Your task to perform on an android device: refresh tabs in the chrome app Image 0: 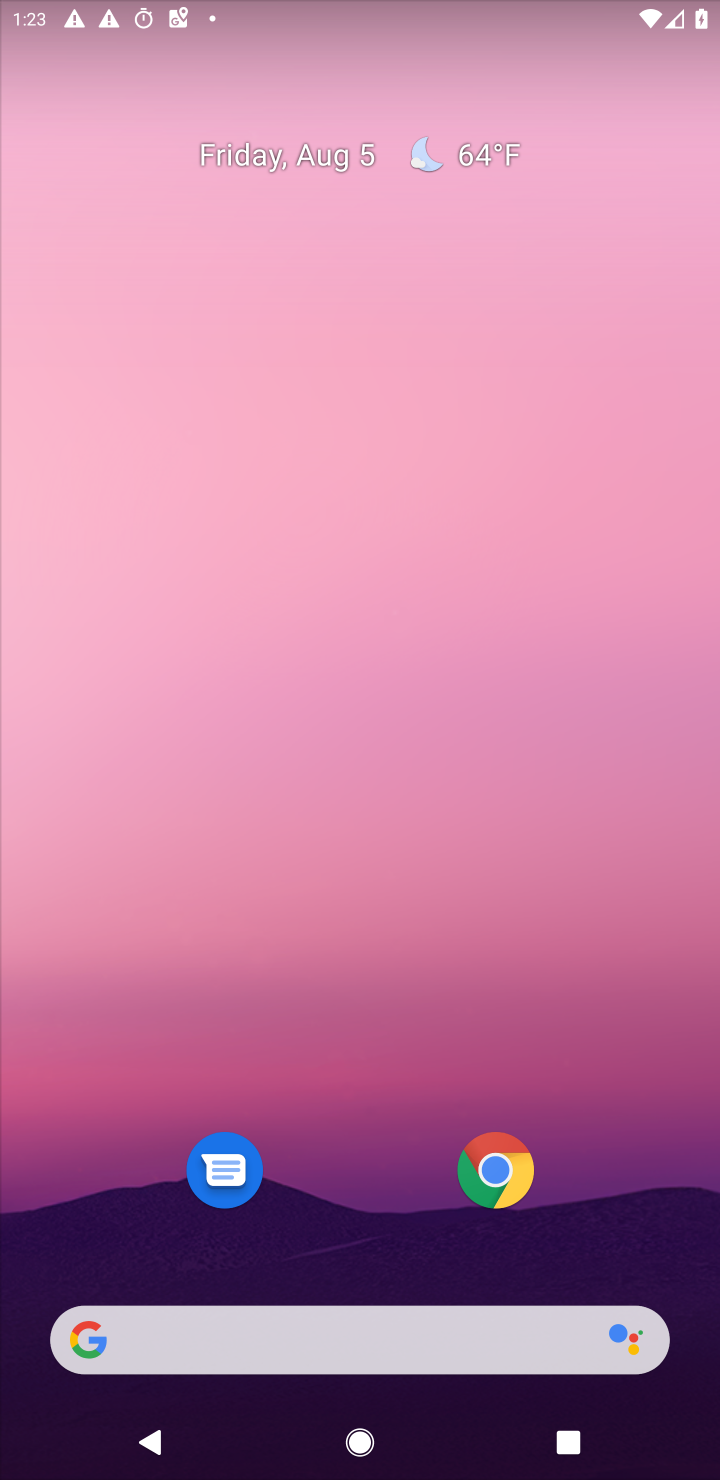
Step 0: drag from (389, 903) to (589, 1)
Your task to perform on an android device: refresh tabs in the chrome app Image 1: 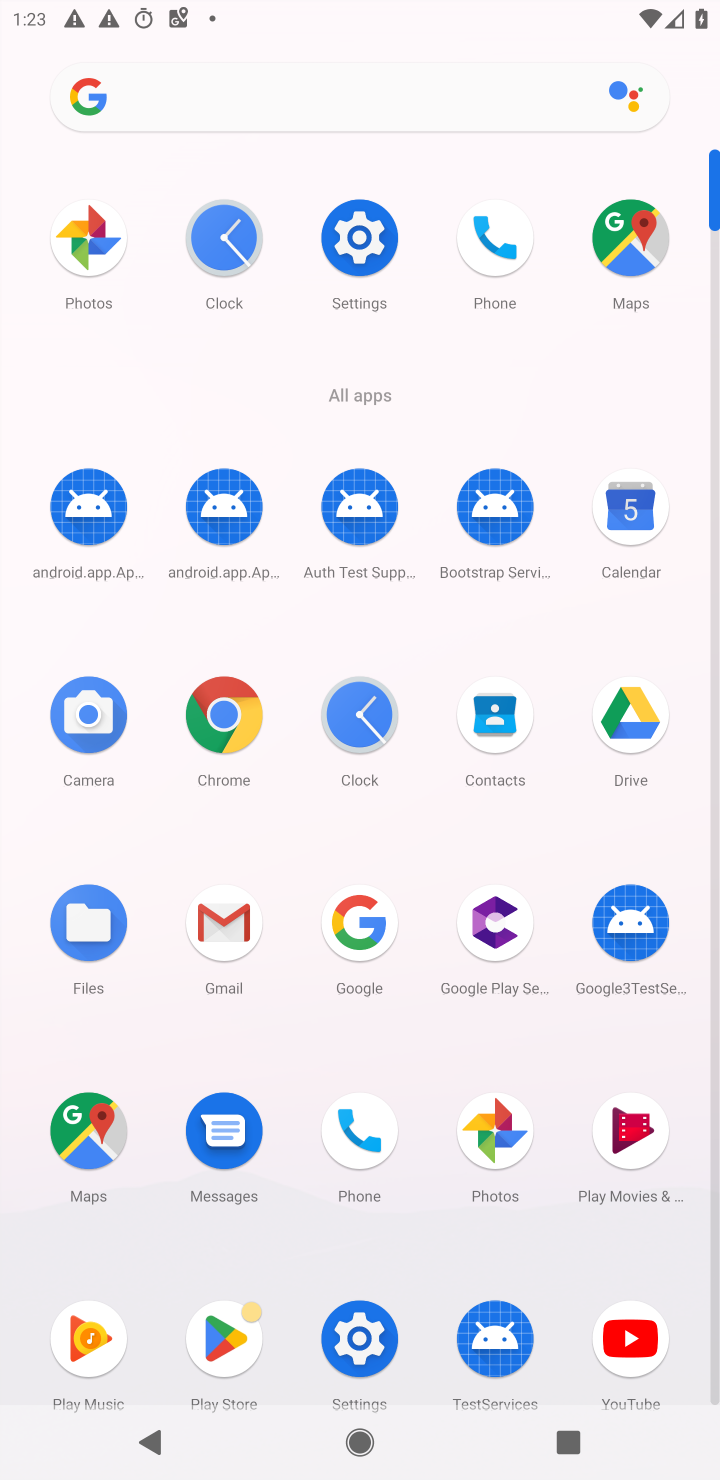
Step 1: click (249, 724)
Your task to perform on an android device: refresh tabs in the chrome app Image 2: 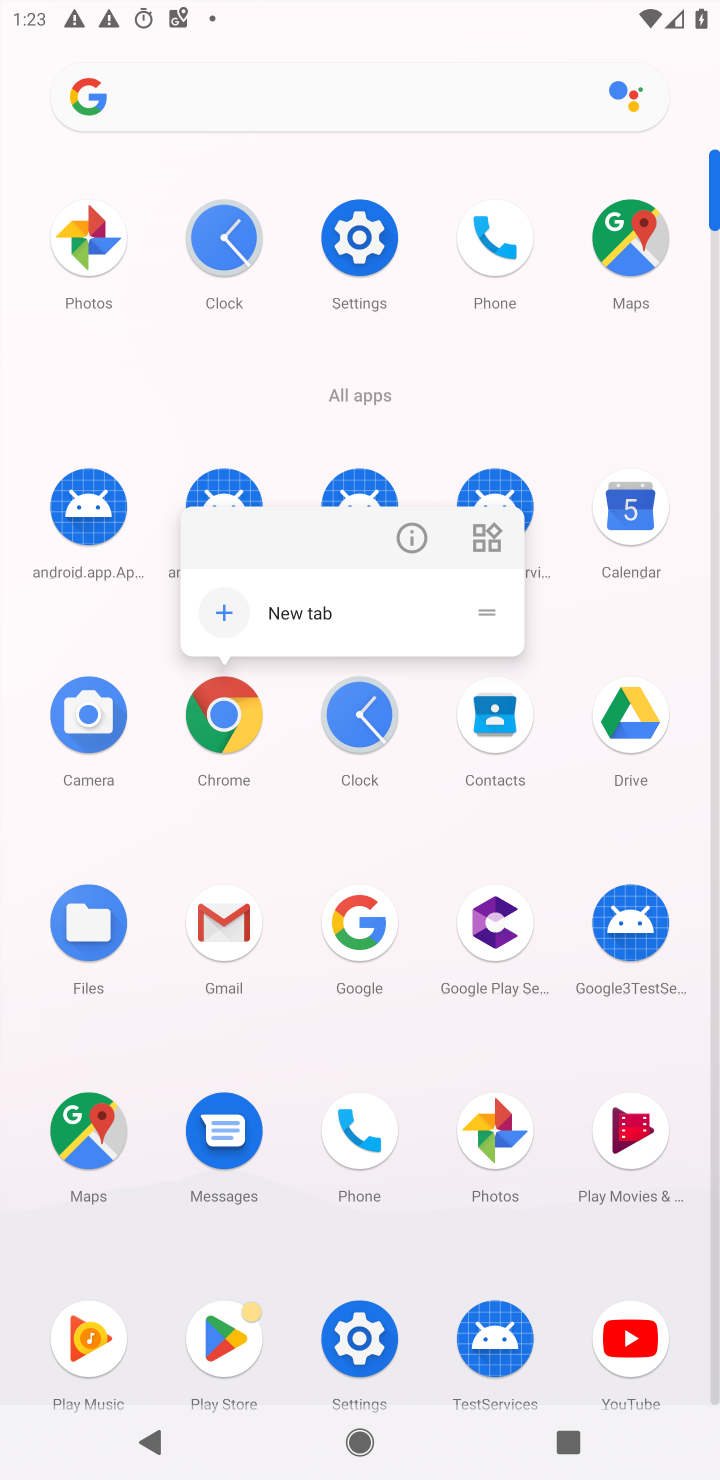
Step 2: click (236, 735)
Your task to perform on an android device: refresh tabs in the chrome app Image 3: 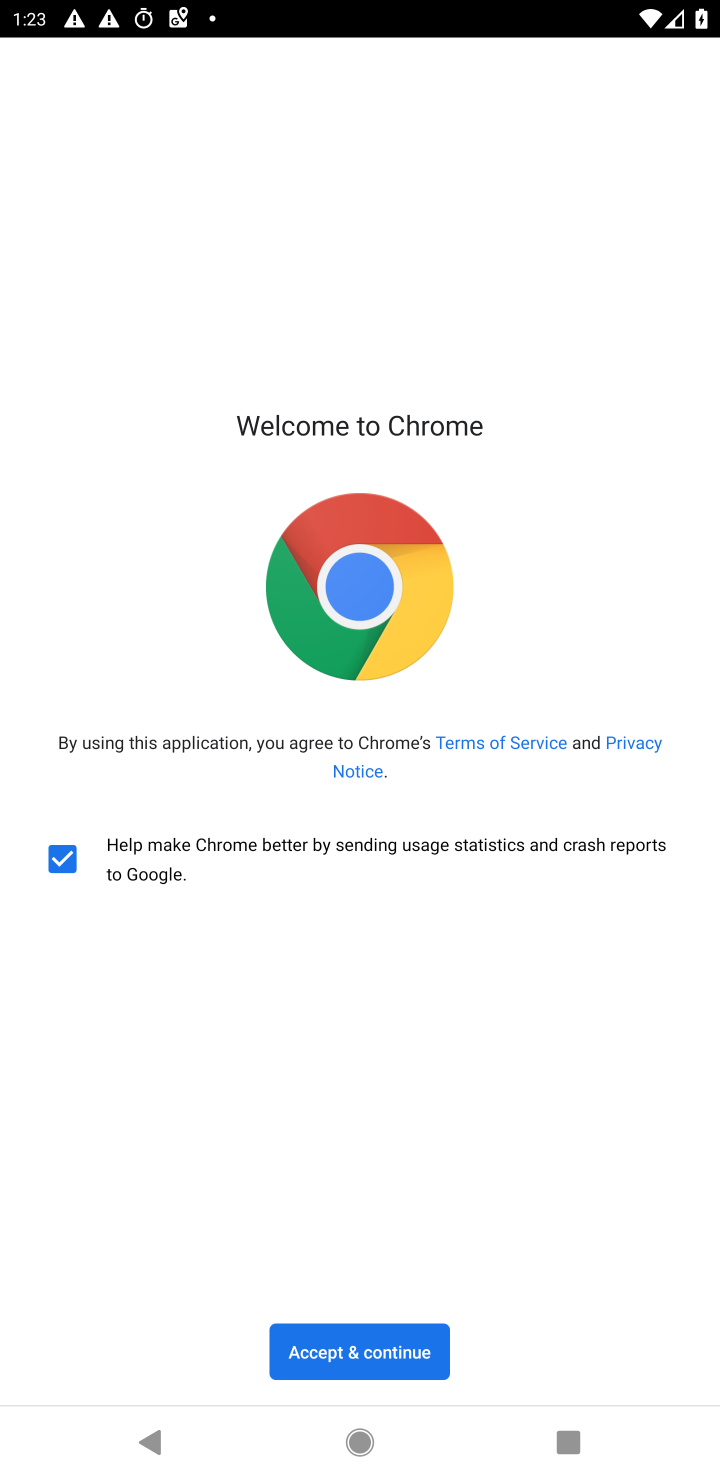
Step 3: click (318, 1334)
Your task to perform on an android device: refresh tabs in the chrome app Image 4: 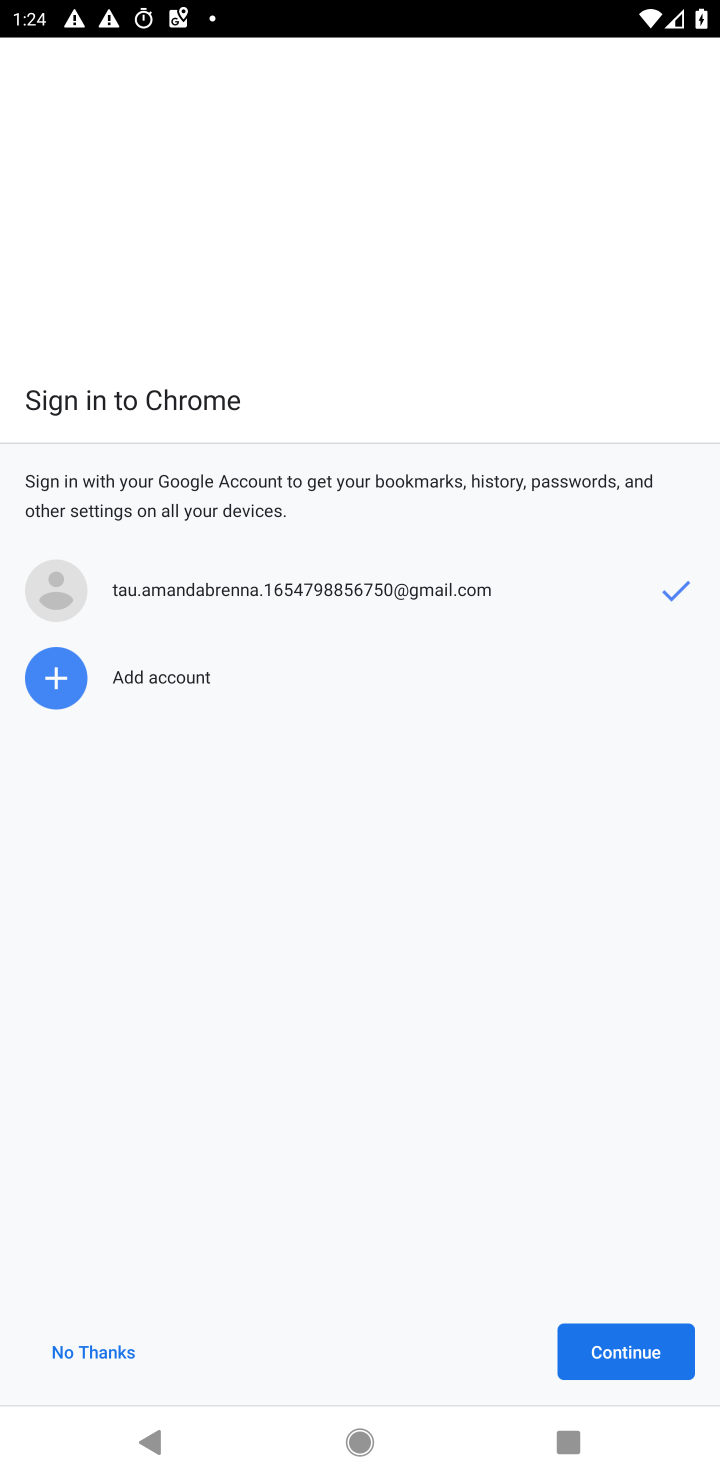
Step 4: click (650, 1343)
Your task to perform on an android device: refresh tabs in the chrome app Image 5: 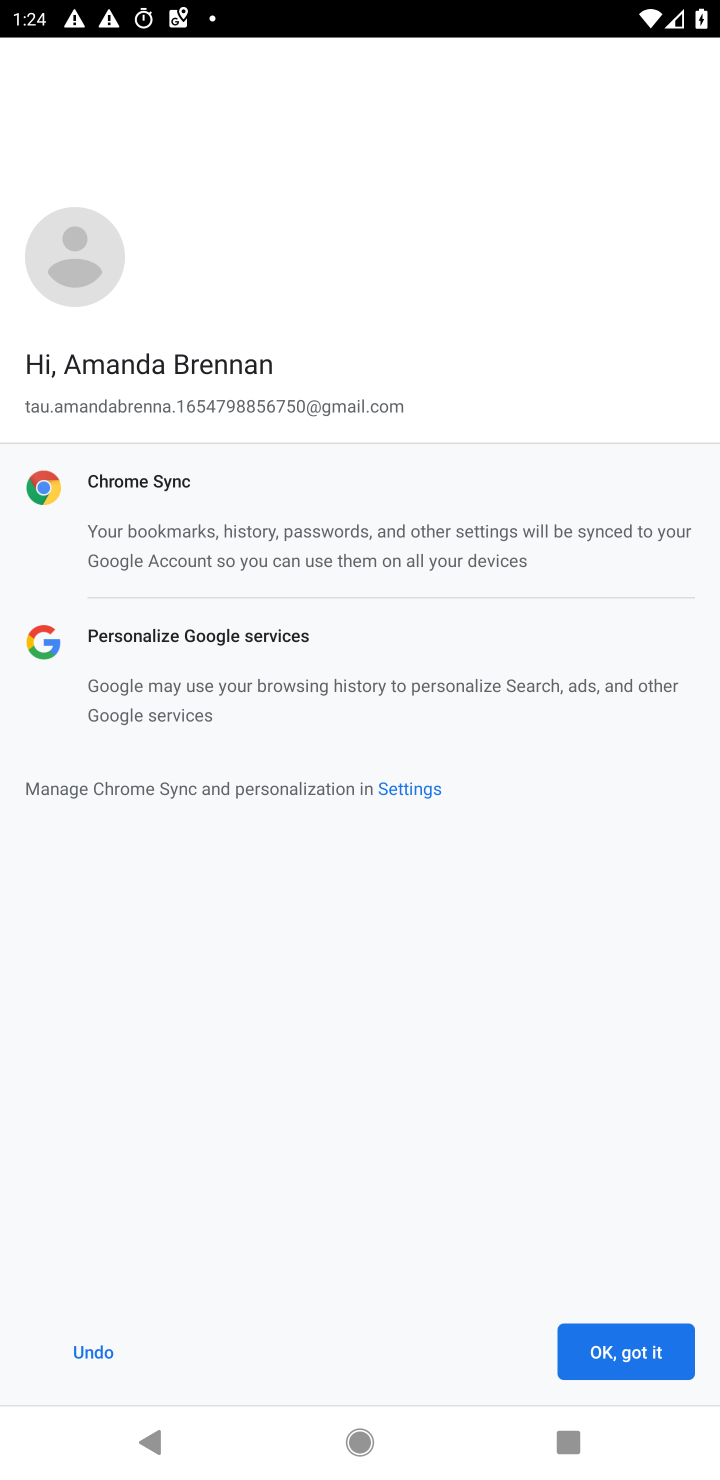
Step 5: click (604, 1362)
Your task to perform on an android device: refresh tabs in the chrome app Image 6: 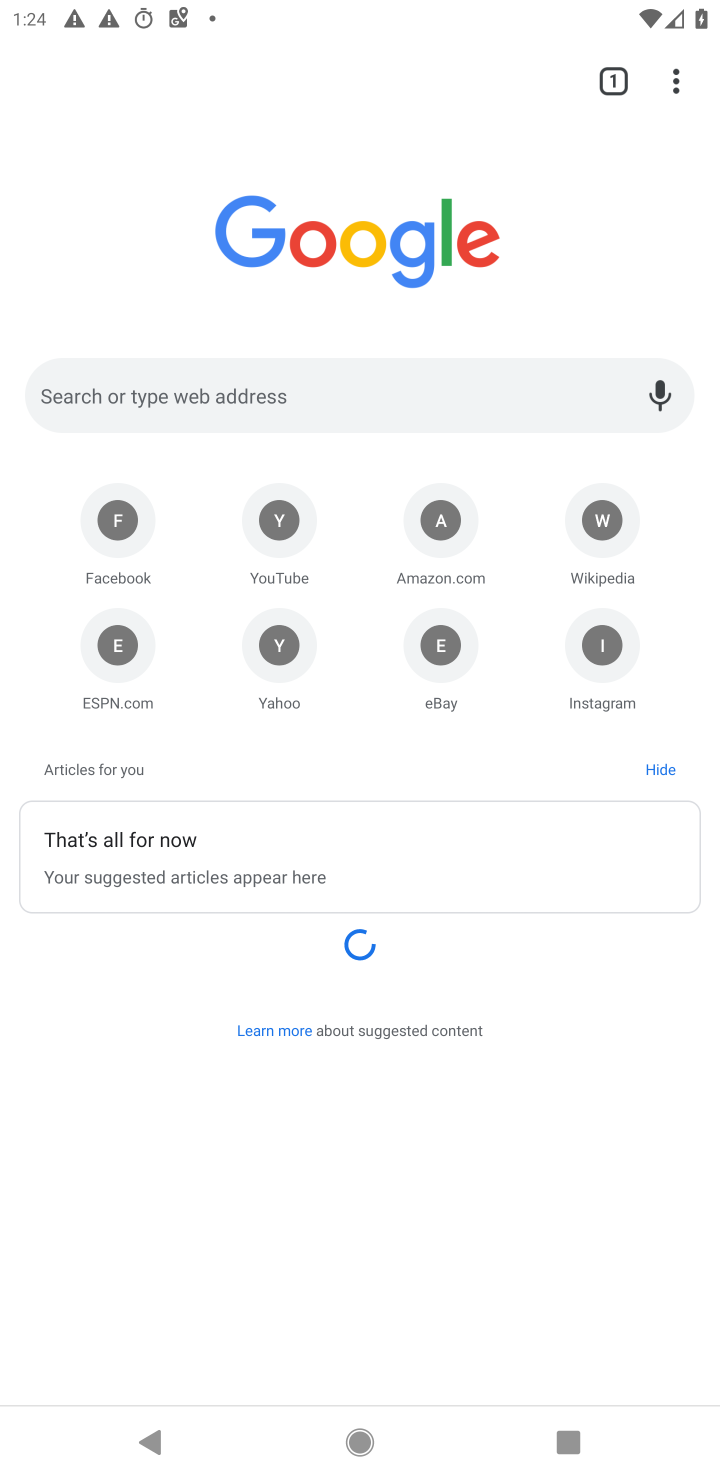
Step 6: click (669, 76)
Your task to perform on an android device: refresh tabs in the chrome app Image 7: 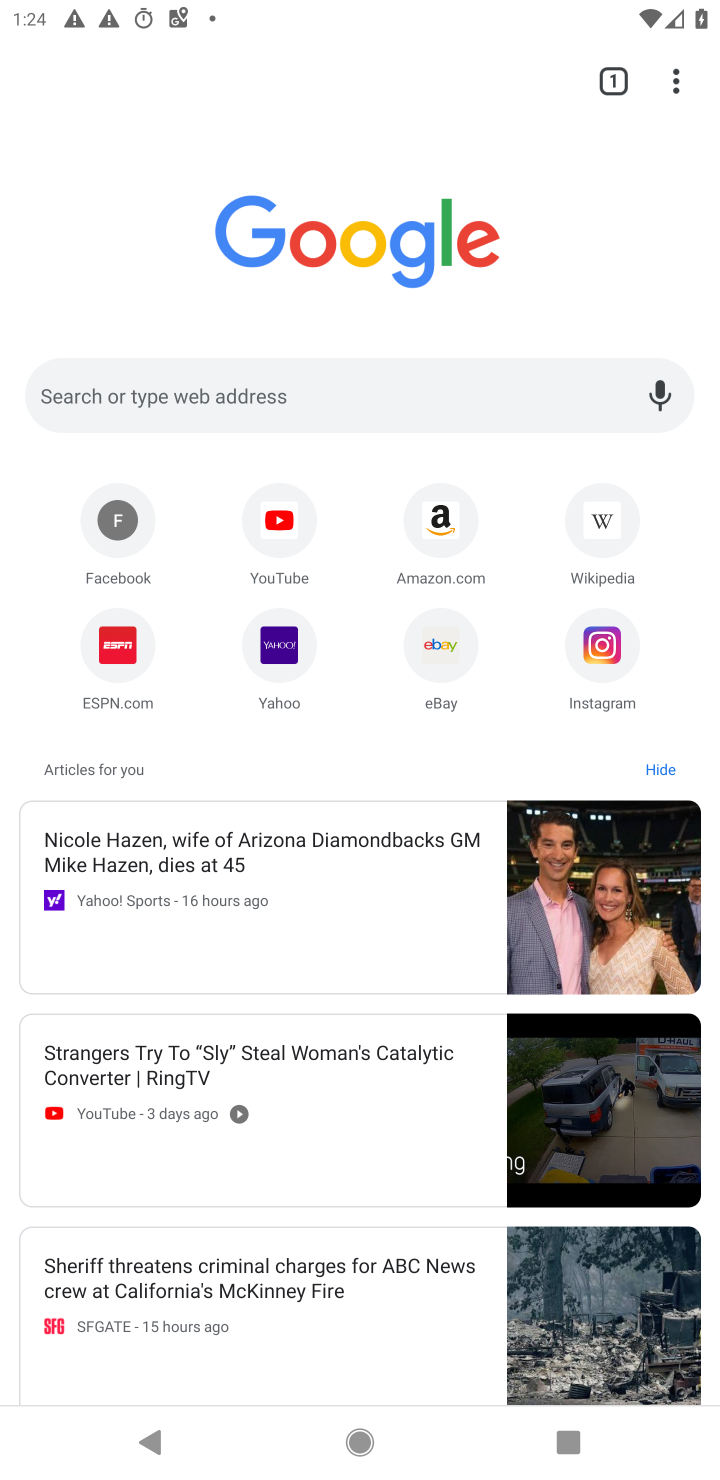
Step 7: click (672, 87)
Your task to perform on an android device: refresh tabs in the chrome app Image 8: 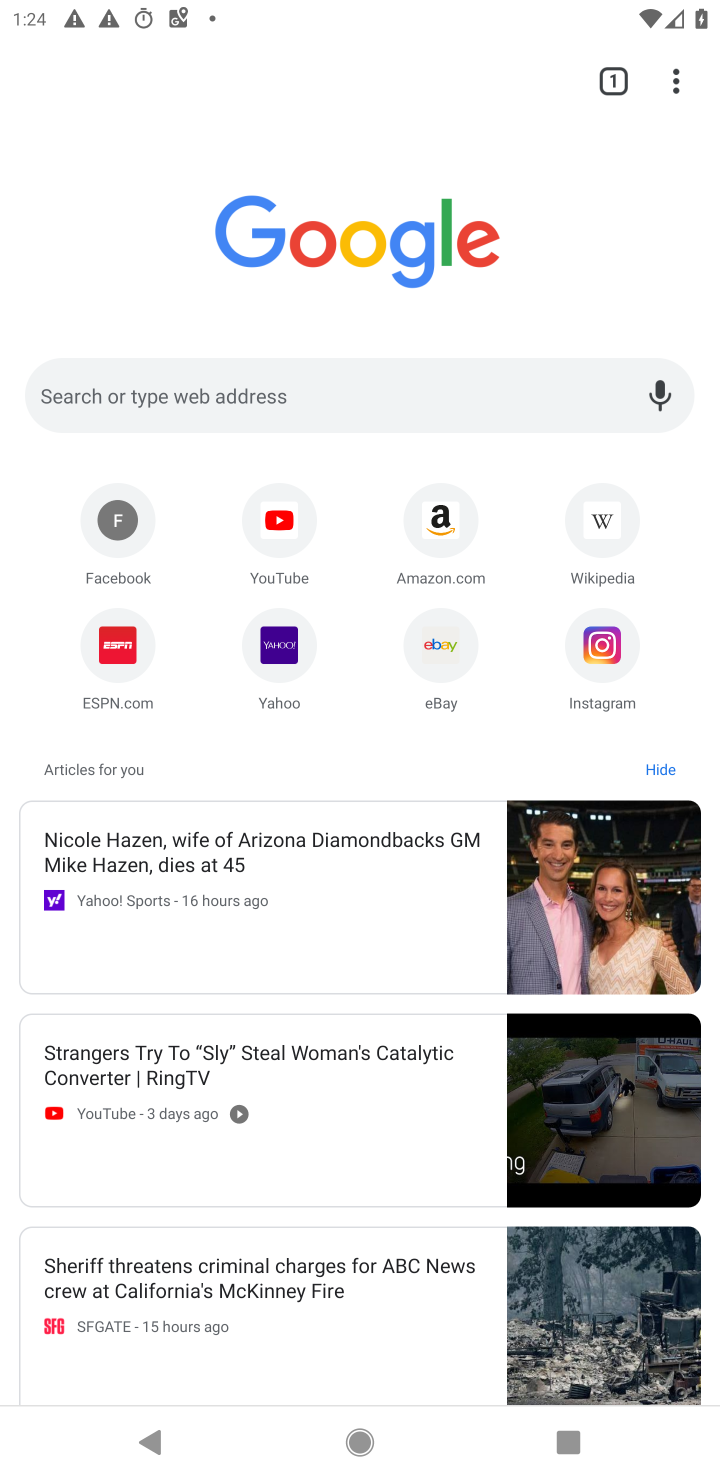
Step 8: click (678, 90)
Your task to perform on an android device: refresh tabs in the chrome app Image 9: 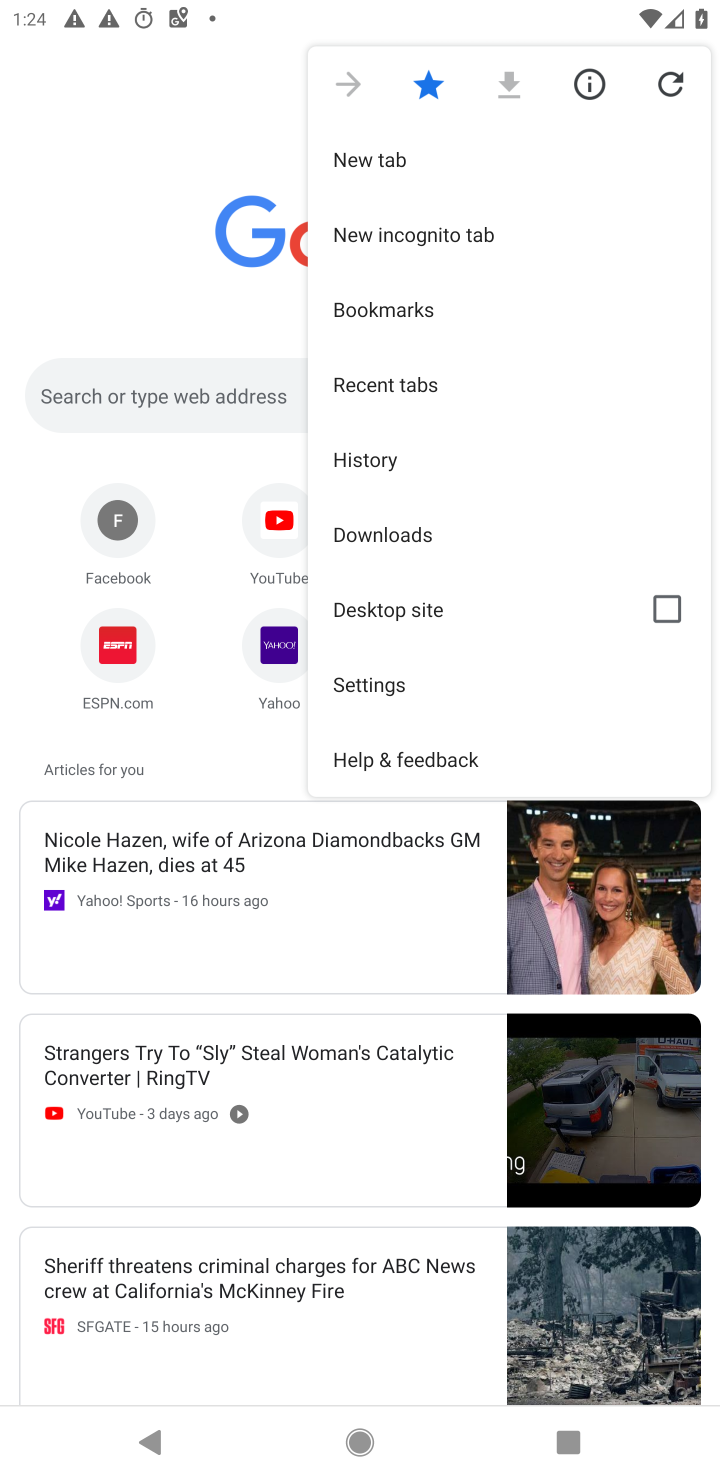
Step 9: click (668, 86)
Your task to perform on an android device: refresh tabs in the chrome app Image 10: 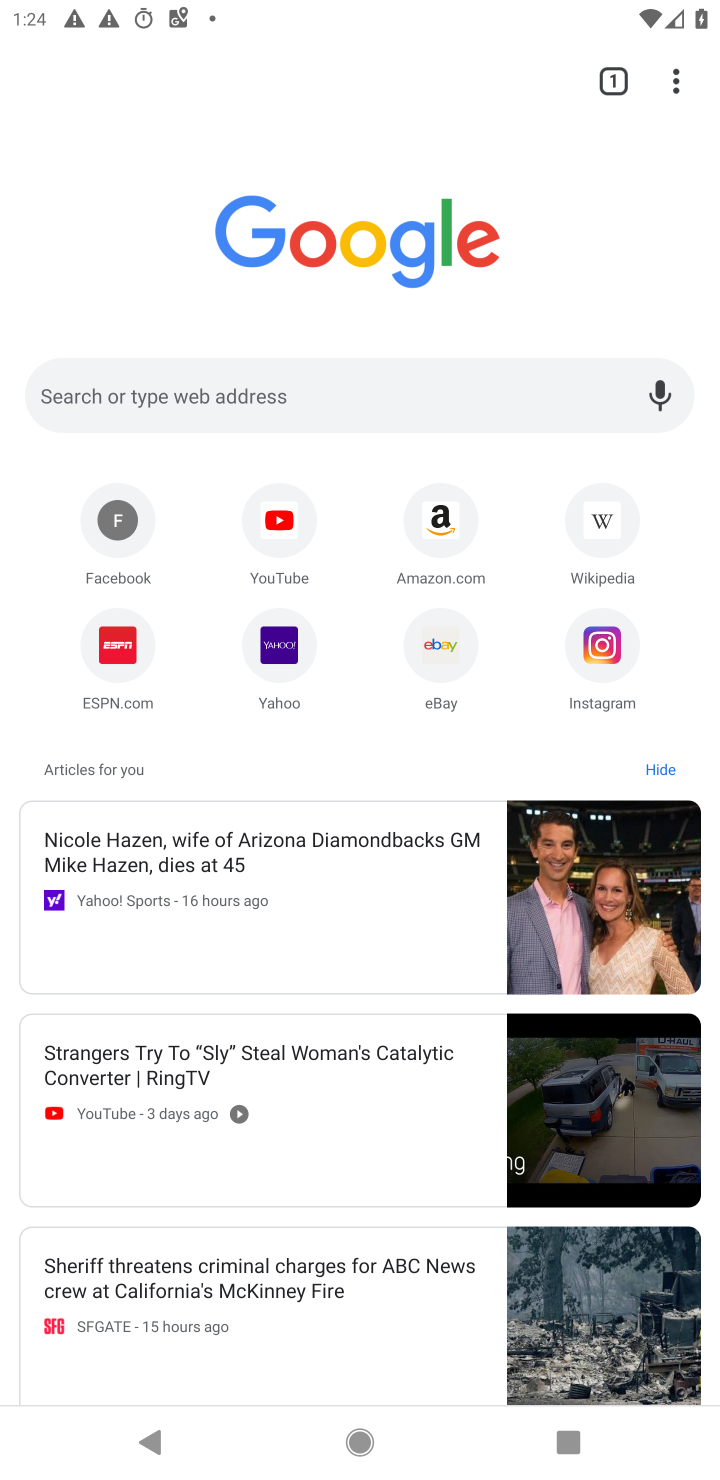
Step 10: task complete